Your task to perform on an android device: find photos in the google photos app Image 0: 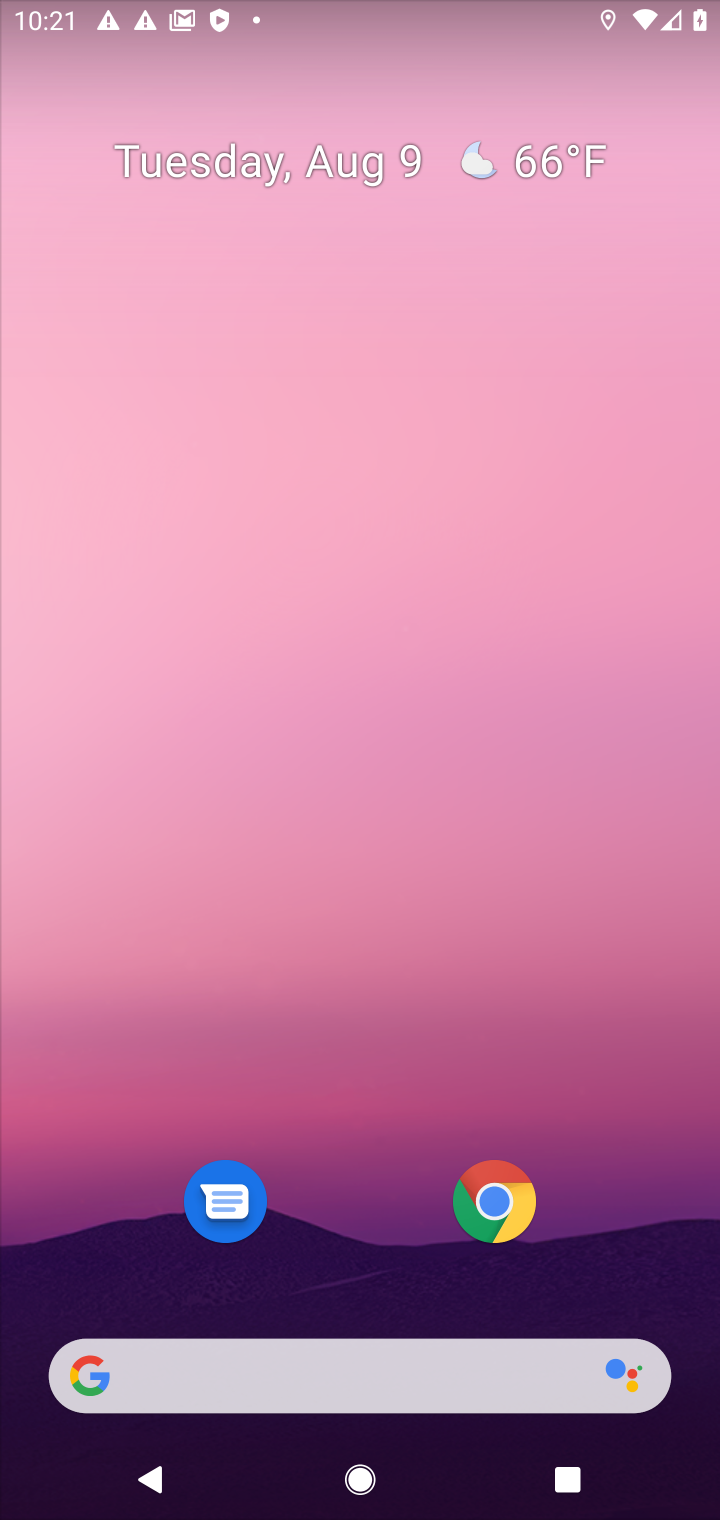
Step 0: drag from (341, 1056) to (304, 385)
Your task to perform on an android device: find photos in the google photos app Image 1: 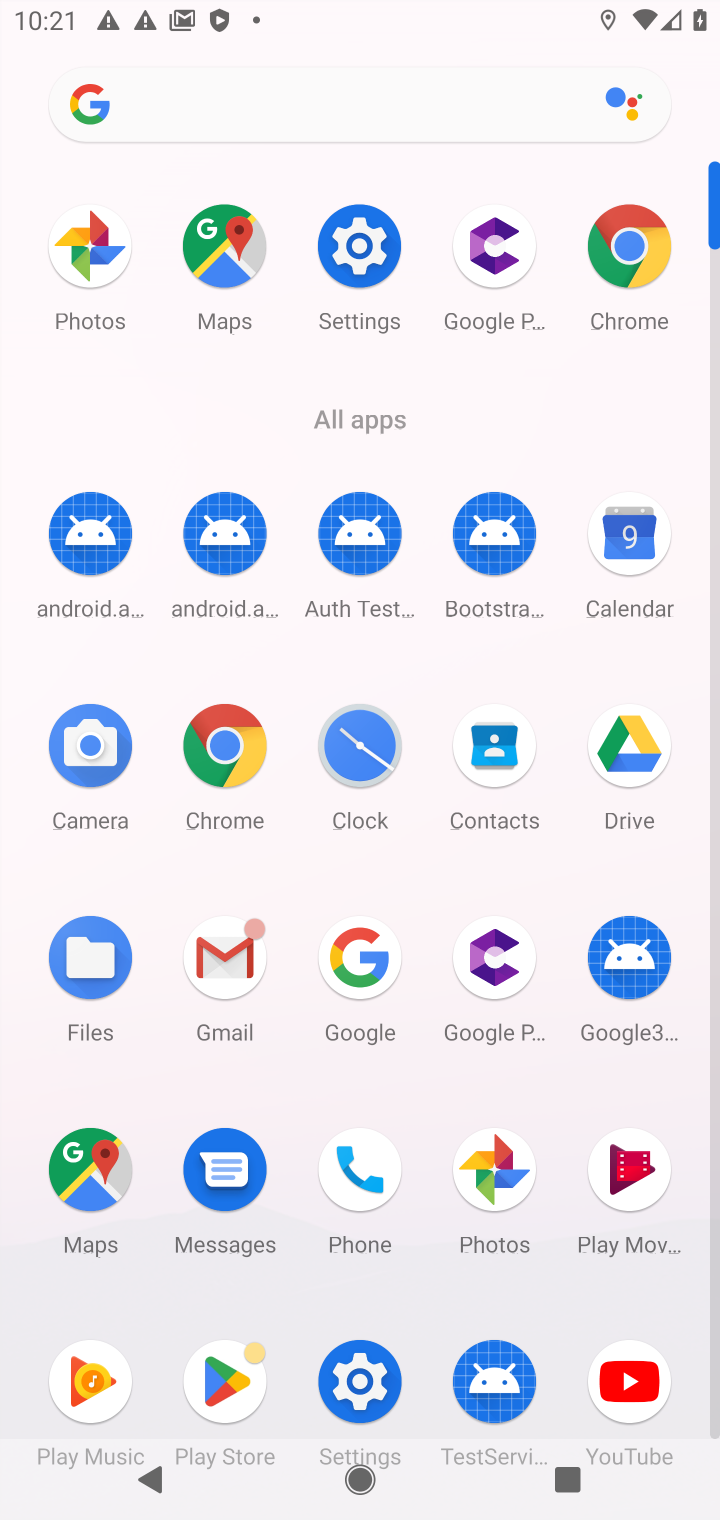
Step 1: click (509, 1170)
Your task to perform on an android device: find photos in the google photos app Image 2: 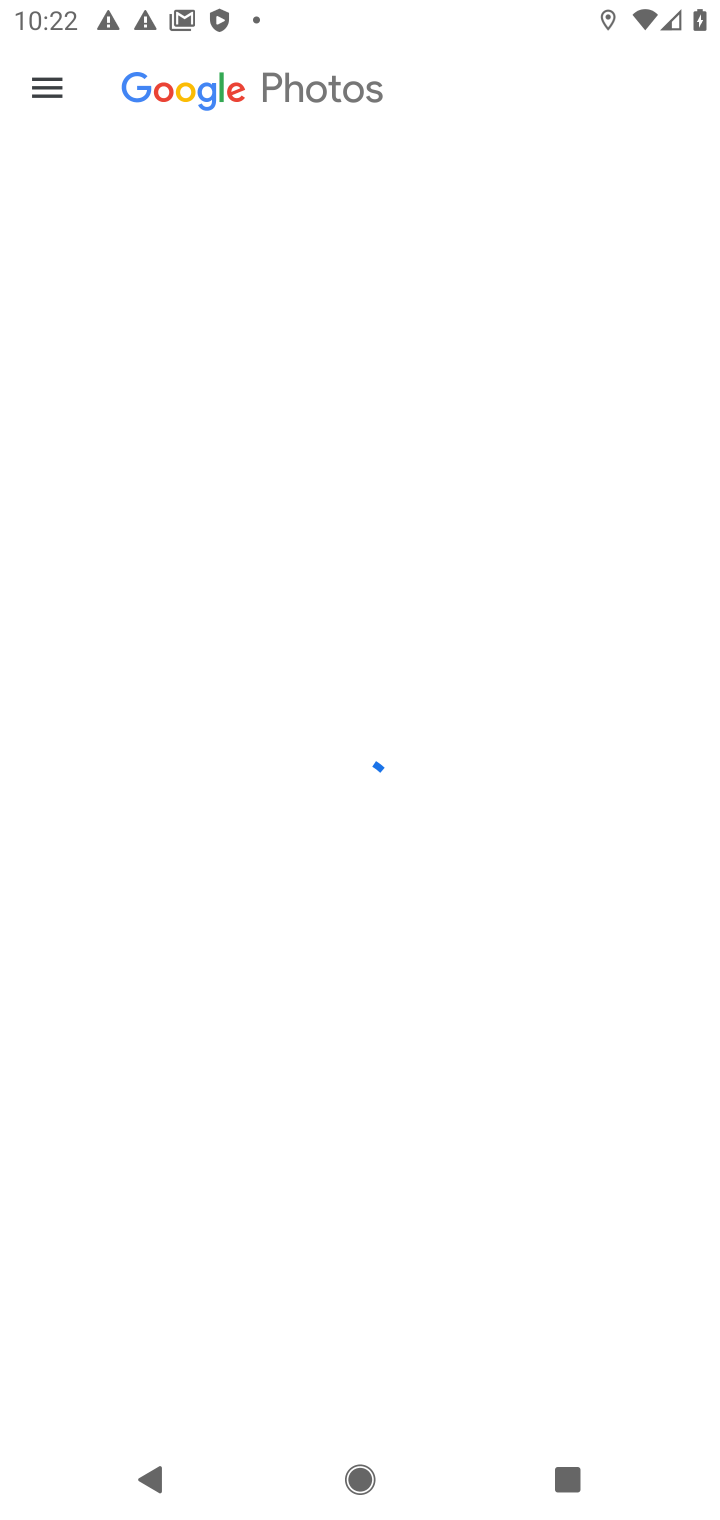
Step 2: task complete